Your task to perform on an android device: Go to Maps Image 0: 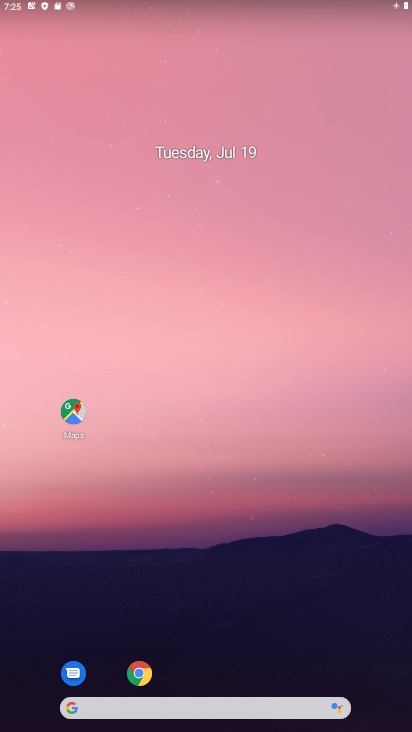
Step 0: drag from (375, 685) to (204, 35)
Your task to perform on an android device: Go to Maps Image 1: 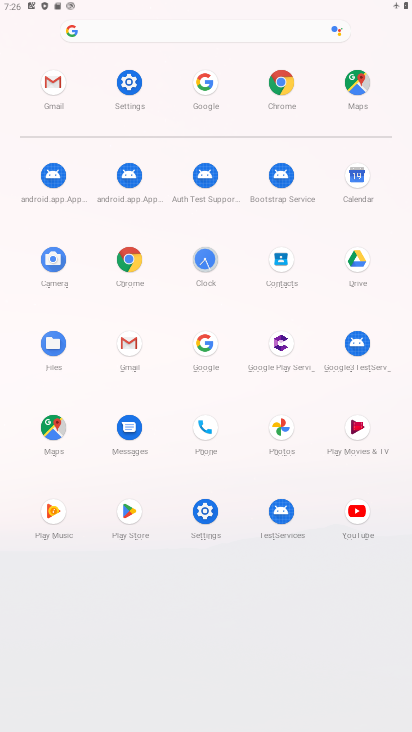
Step 1: click (51, 428)
Your task to perform on an android device: Go to Maps Image 2: 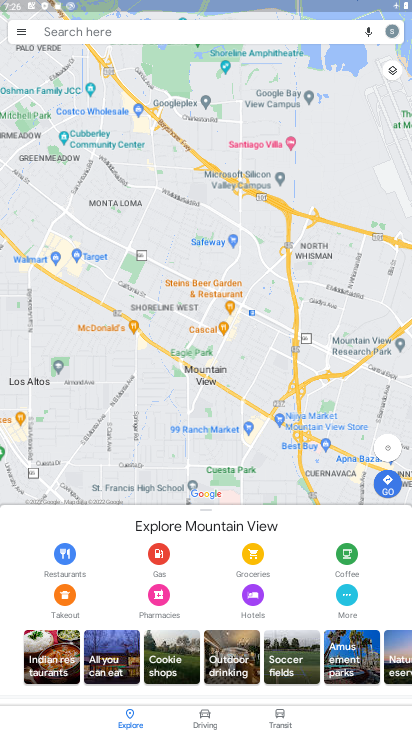
Step 2: task complete